Your task to perform on an android device: Turn off the flashlight Image 0: 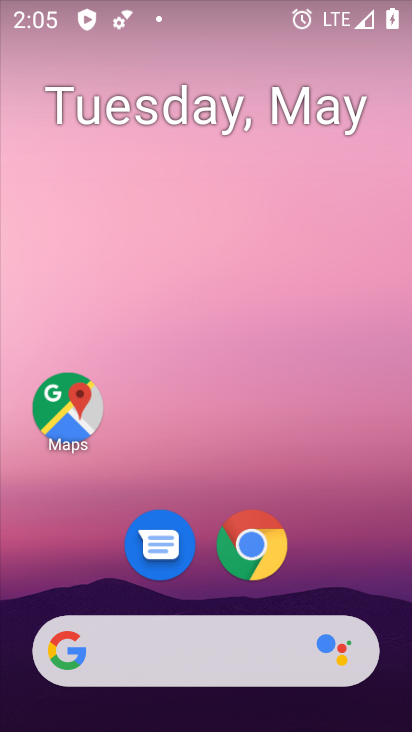
Step 0: drag from (336, 464) to (238, 6)
Your task to perform on an android device: Turn off the flashlight Image 1: 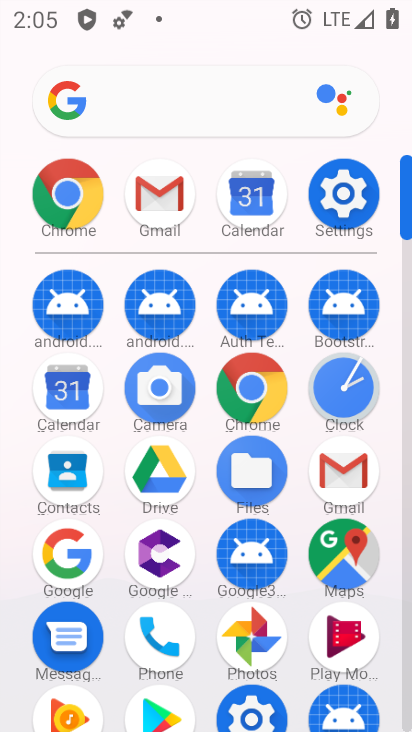
Step 1: drag from (20, 558) to (14, 187)
Your task to perform on an android device: Turn off the flashlight Image 2: 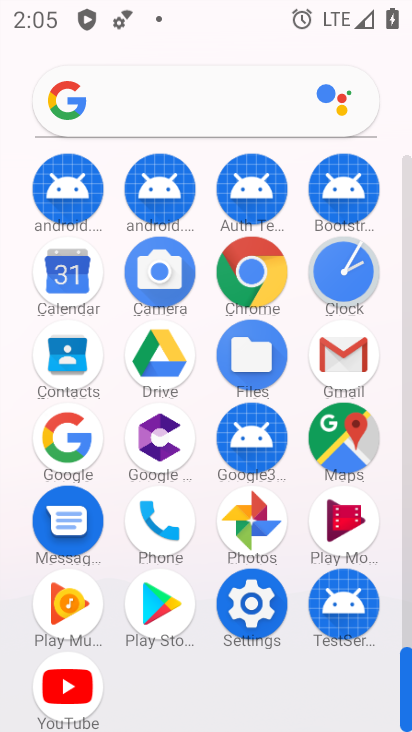
Step 2: click (248, 599)
Your task to perform on an android device: Turn off the flashlight Image 3: 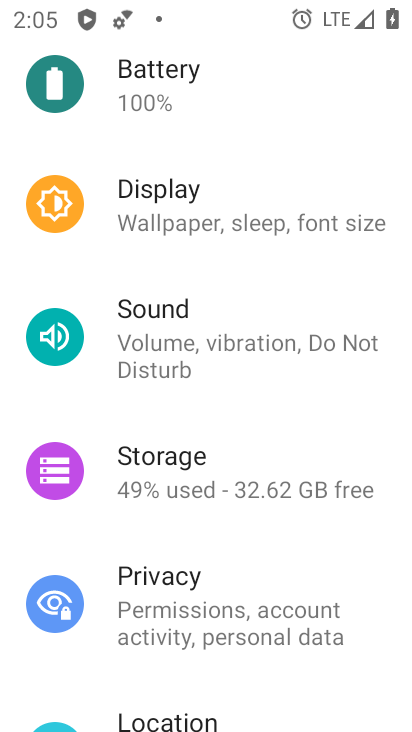
Step 3: drag from (271, 213) to (286, 661)
Your task to perform on an android device: Turn off the flashlight Image 4: 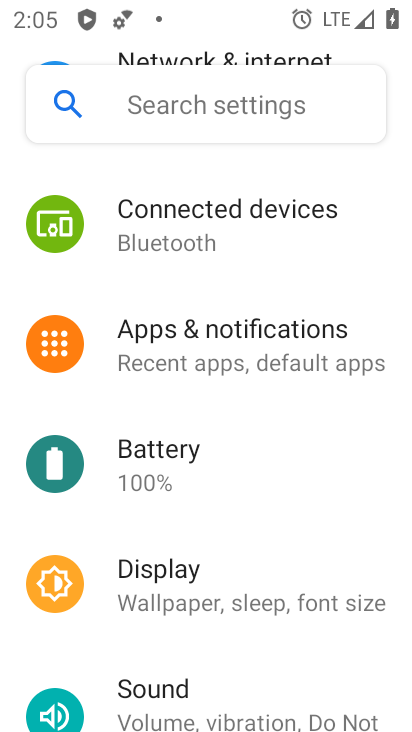
Step 4: drag from (251, 259) to (307, 666)
Your task to perform on an android device: Turn off the flashlight Image 5: 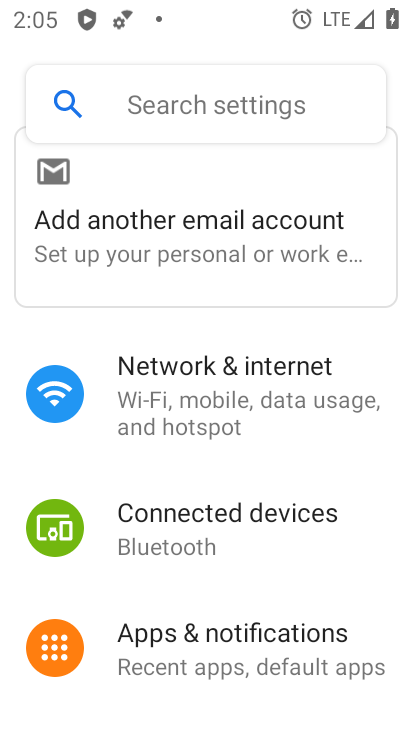
Step 5: click (251, 382)
Your task to perform on an android device: Turn off the flashlight Image 6: 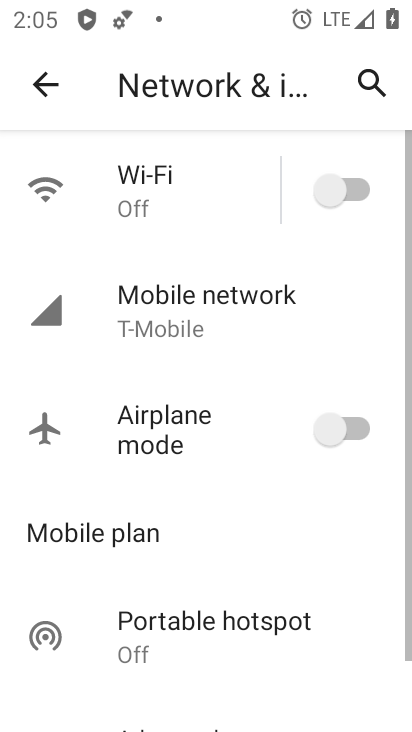
Step 6: drag from (219, 641) to (213, 216)
Your task to perform on an android device: Turn off the flashlight Image 7: 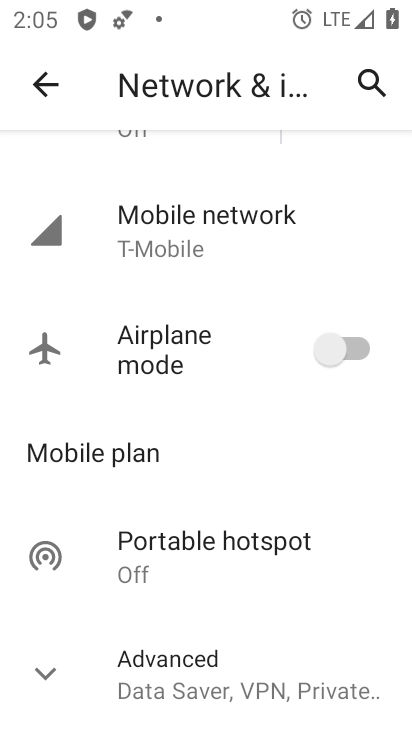
Step 7: click (54, 675)
Your task to perform on an android device: Turn off the flashlight Image 8: 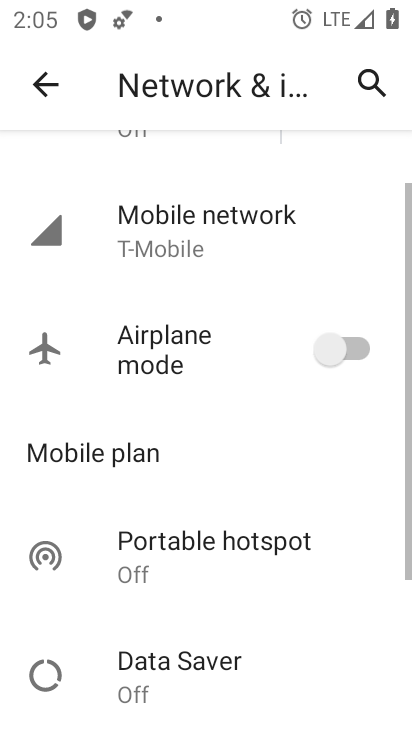
Step 8: task complete